Your task to perform on an android device: Show me popular games on the Play Store Image 0: 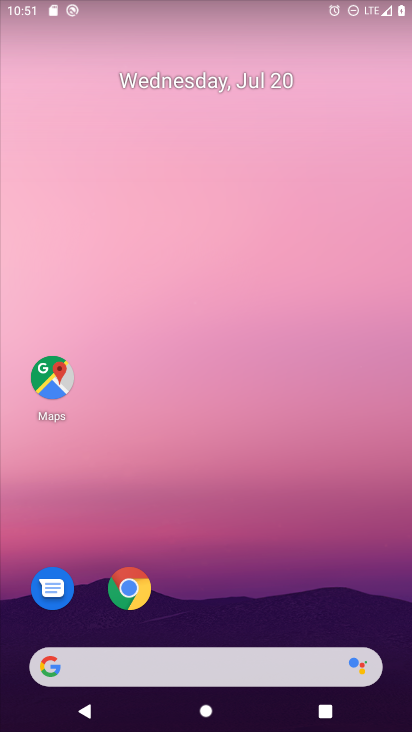
Step 0: drag from (123, 636) to (260, 180)
Your task to perform on an android device: Show me popular games on the Play Store Image 1: 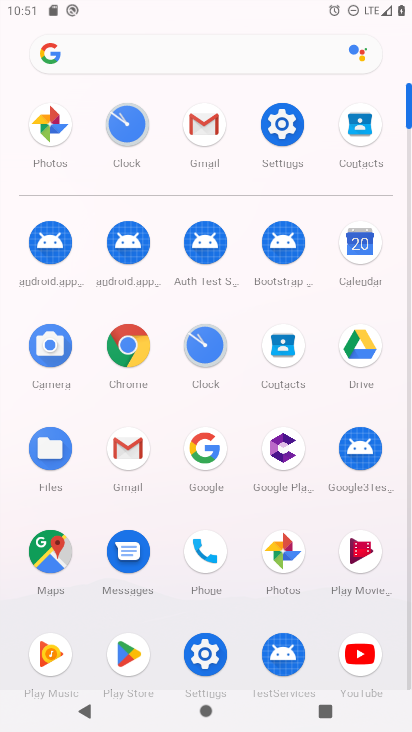
Step 1: click (121, 674)
Your task to perform on an android device: Show me popular games on the Play Store Image 2: 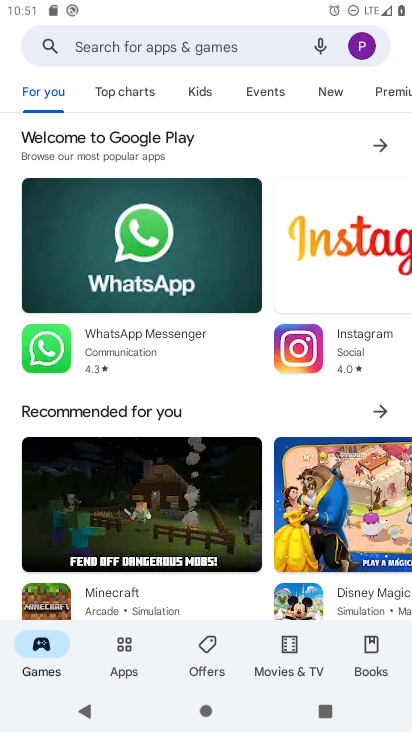
Step 2: click (115, 100)
Your task to perform on an android device: Show me popular games on the Play Store Image 3: 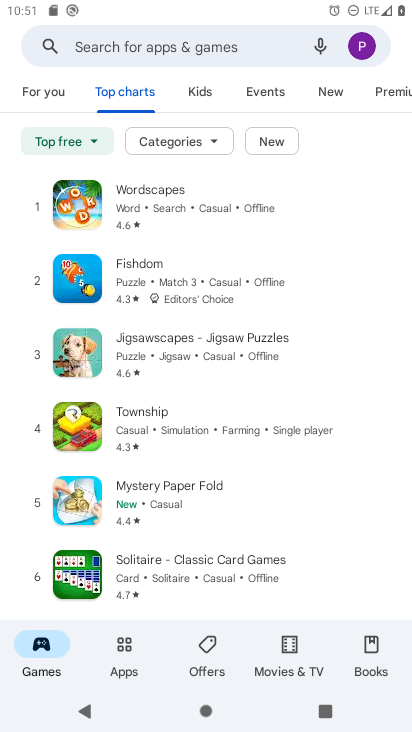
Step 3: task complete